Your task to perform on an android device: see creations saved in the google photos Image 0: 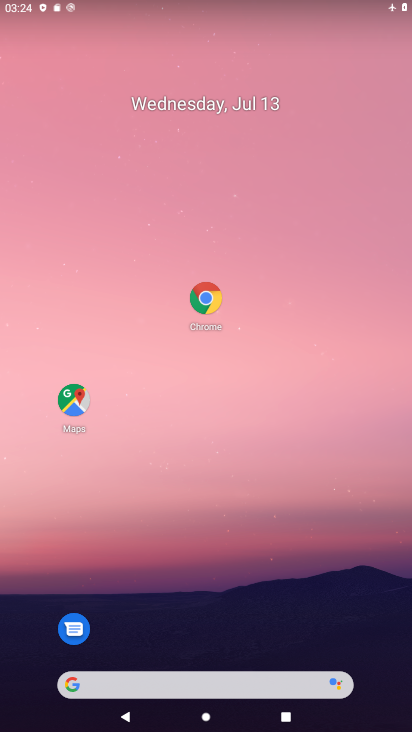
Step 0: drag from (203, 601) to (261, 188)
Your task to perform on an android device: see creations saved in the google photos Image 1: 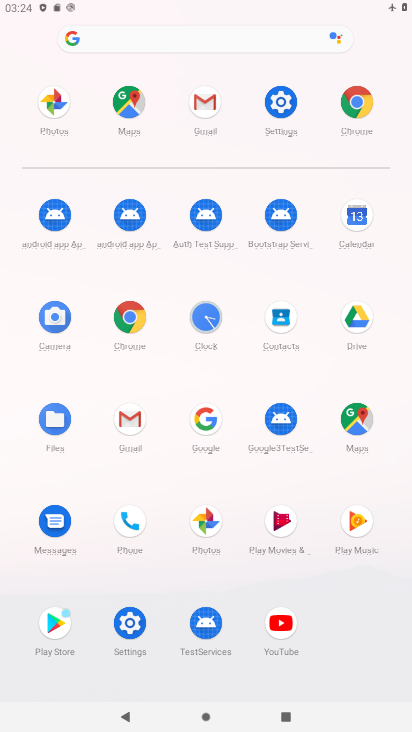
Step 1: click (201, 517)
Your task to perform on an android device: see creations saved in the google photos Image 2: 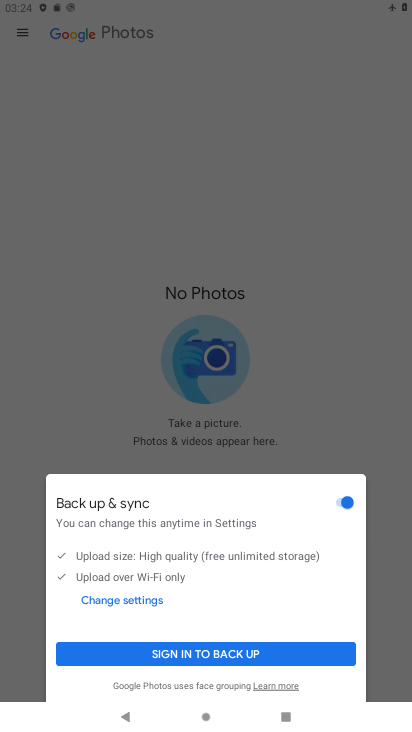
Step 2: click (187, 655)
Your task to perform on an android device: see creations saved in the google photos Image 3: 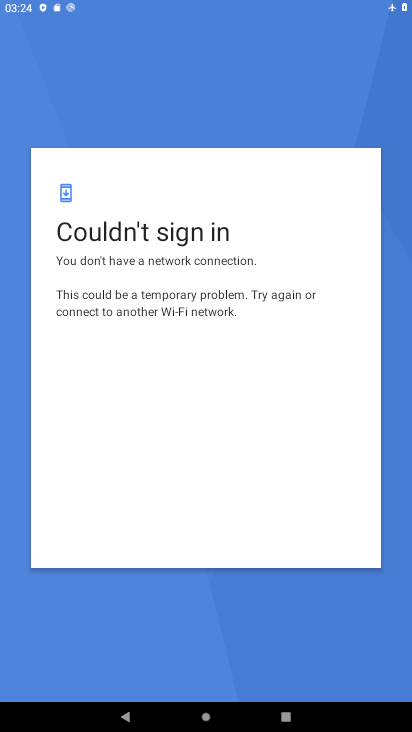
Step 3: task complete